Your task to perform on an android device: open the mobile data screen to see how much data has been used Image 0: 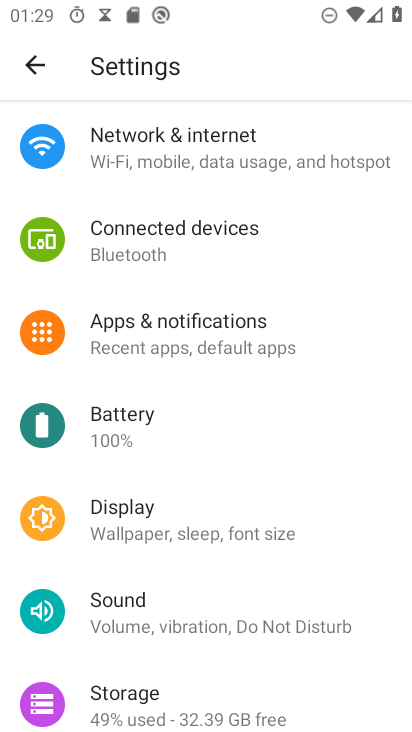
Step 0: click (143, 155)
Your task to perform on an android device: open the mobile data screen to see how much data has been used Image 1: 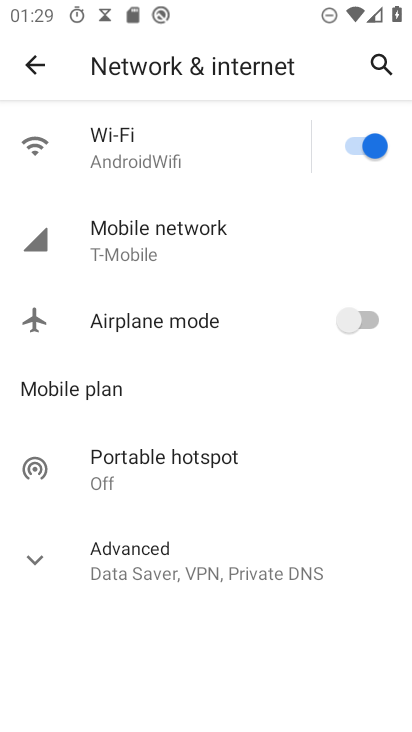
Step 1: click (125, 243)
Your task to perform on an android device: open the mobile data screen to see how much data has been used Image 2: 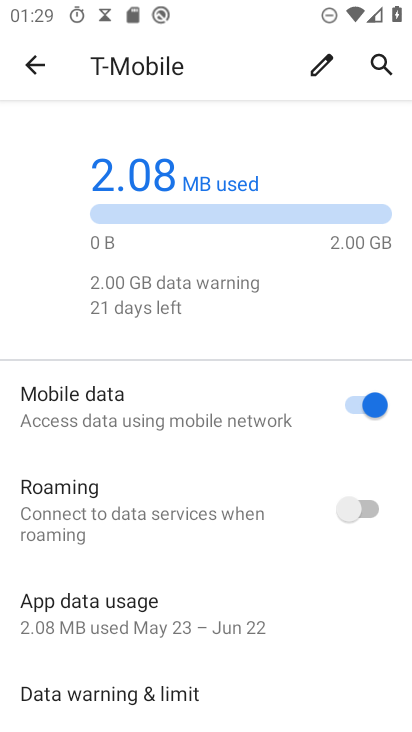
Step 2: click (166, 630)
Your task to perform on an android device: open the mobile data screen to see how much data has been used Image 3: 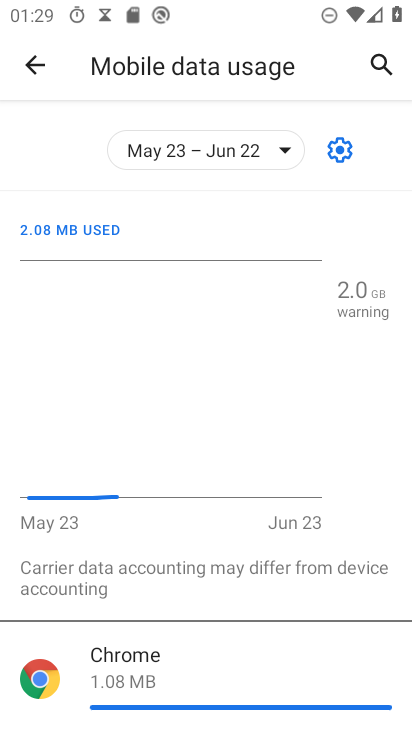
Step 3: task complete